Your task to perform on an android device: Go to settings Image 0: 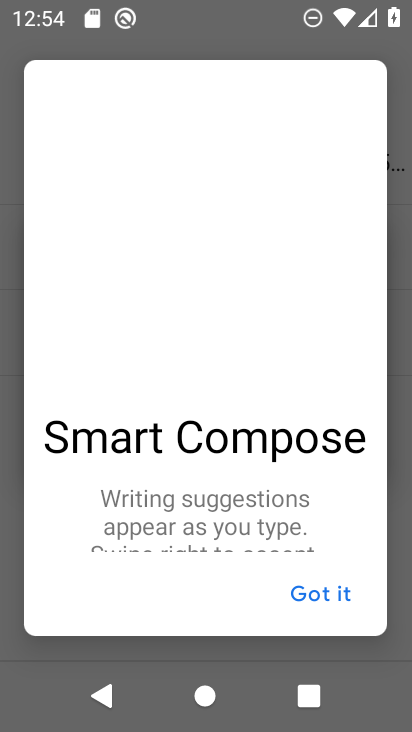
Step 0: press back button
Your task to perform on an android device: Go to settings Image 1: 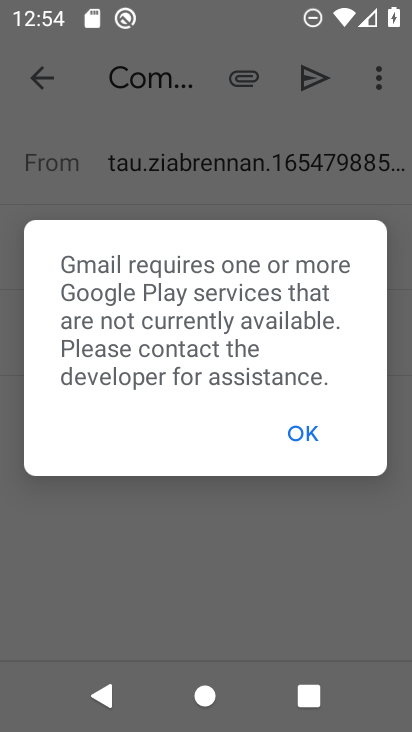
Step 1: press back button
Your task to perform on an android device: Go to settings Image 2: 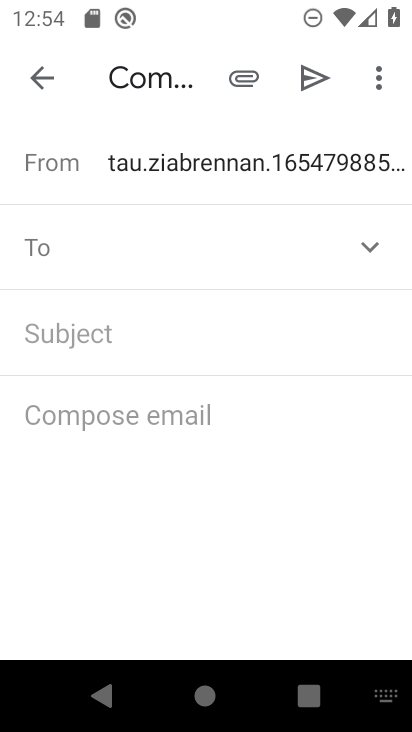
Step 2: press home button
Your task to perform on an android device: Go to settings Image 3: 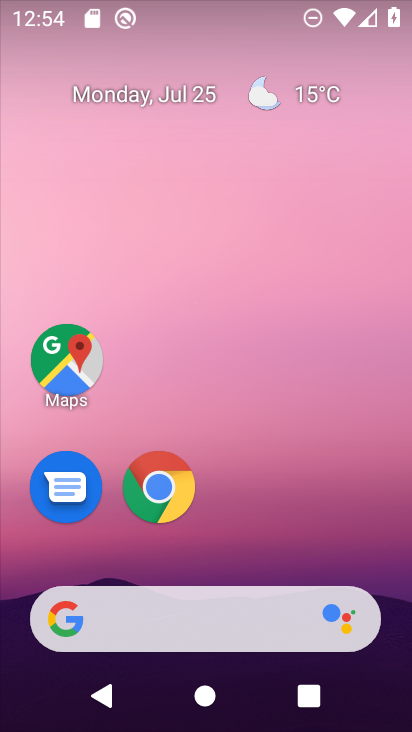
Step 3: drag from (271, 528) to (335, 4)
Your task to perform on an android device: Go to settings Image 4: 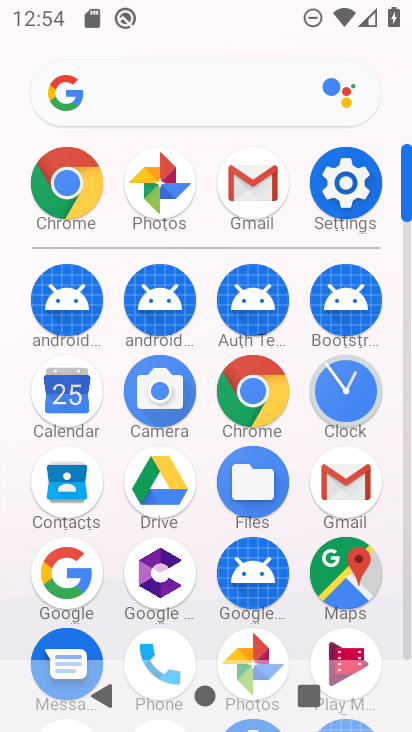
Step 4: click (339, 178)
Your task to perform on an android device: Go to settings Image 5: 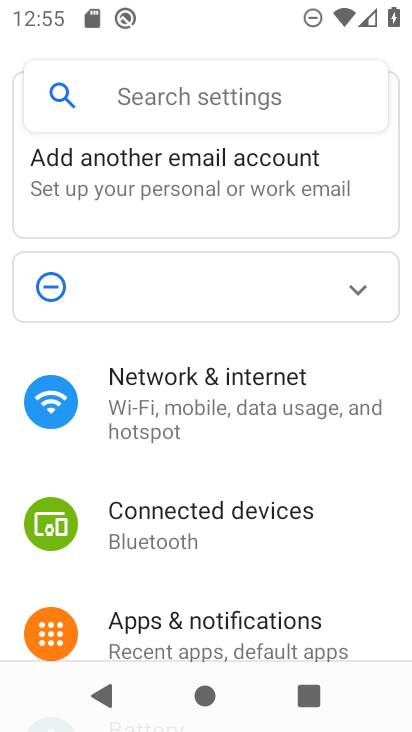
Step 5: task complete